Your task to perform on an android device: Open calendar and show me the fourth week of next month Image 0: 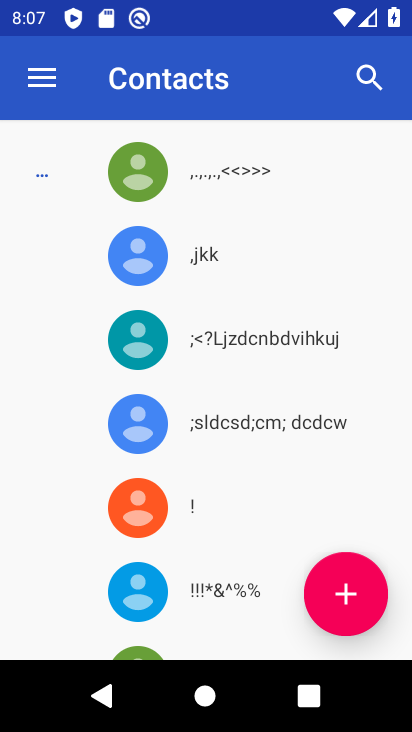
Step 0: press home button
Your task to perform on an android device: Open calendar and show me the fourth week of next month Image 1: 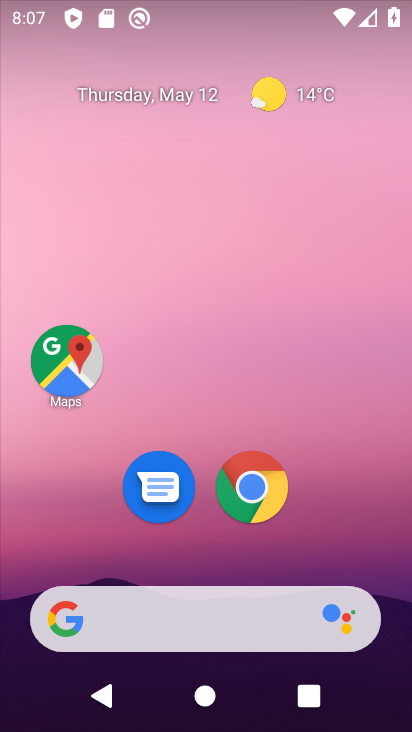
Step 1: drag from (369, 574) to (352, 5)
Your task to perform on an android device: Open calendar and show me the fourth week of next month Image 2: 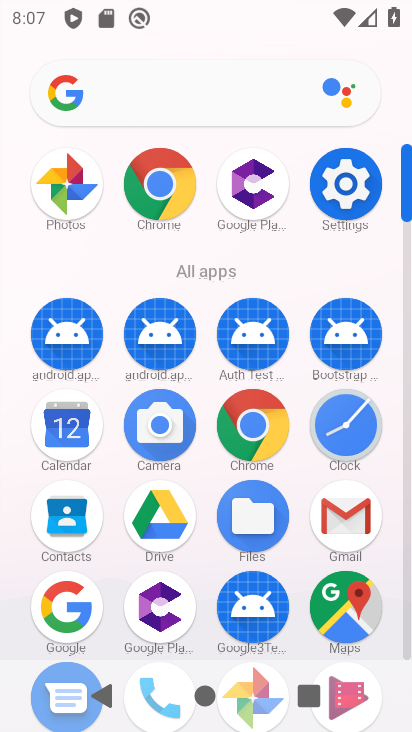
Step 2: click (69, 428)
Your task to perform on an android device: Open calendar and show me the fourth week of next month Image 3: 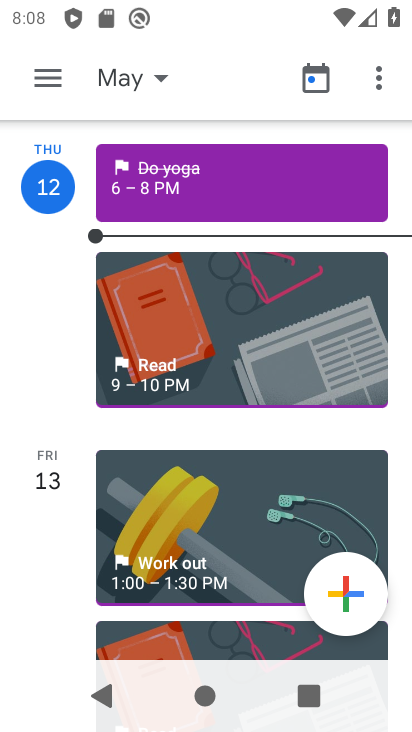
Step 3: click (161, 82)
Your task to perform on an android device: Open calendar and show me the fourth week of next month Image 4: 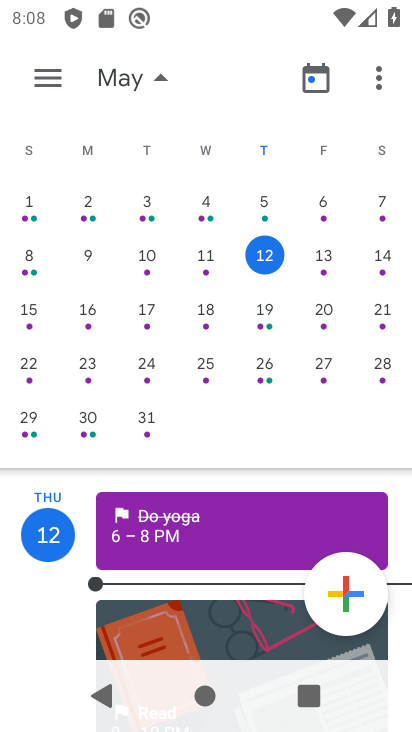
Step 4: drag from (362, 289) to (8, 340)
Your task to perform on an android device: Open calendar and show me the fourth week of next month Image 5: 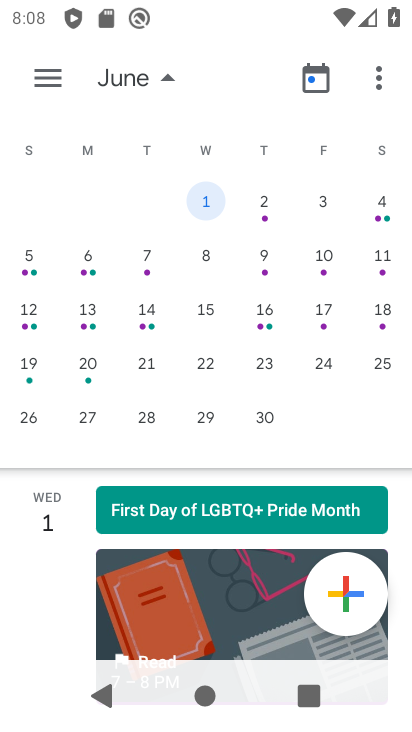
Step 5: click (45, 74)
Your task to perform on an android device: Open calendar and show me the fourth week of next month Image 6: 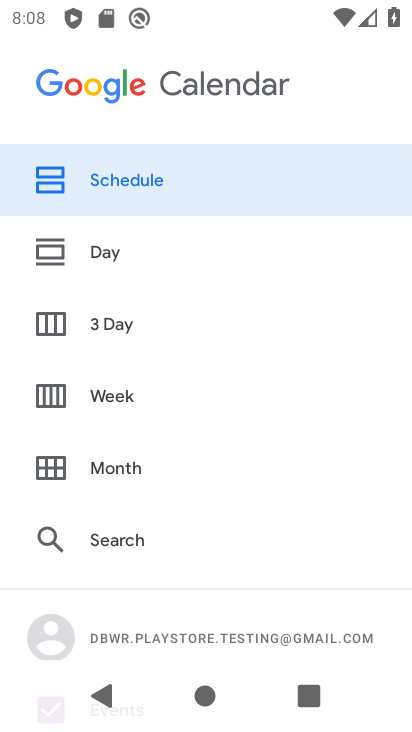
Step 6: click (83, 396)
Your task to perform on an android device: Open calendar and show me the fourth week of next month Image 7: 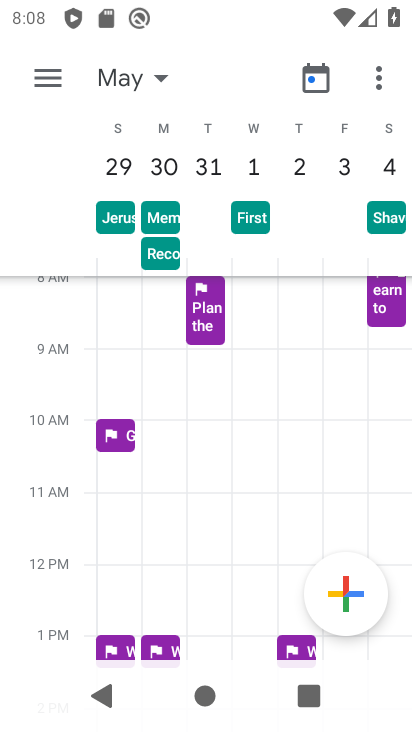
Step 7: task complete